Your task to perform on an android device: toggle priority inbox in the gmail app Image 0: 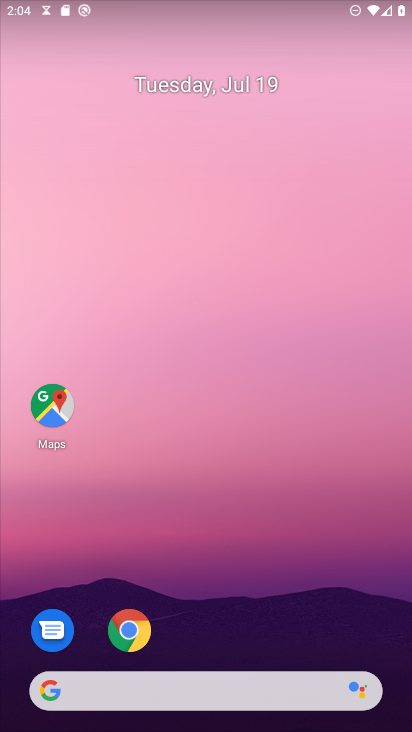
Step 0: press home button
Your task to perform on an android device: toggle priority inbox in the gmail app Image 1: 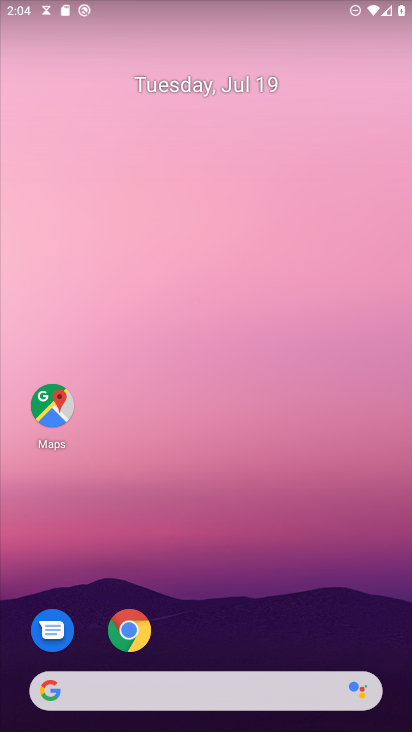
Step 1: drag from (140, 686) to (288, 195)
Your task to perform on an android device: toggle priority inbox in the gmail app Image 2: 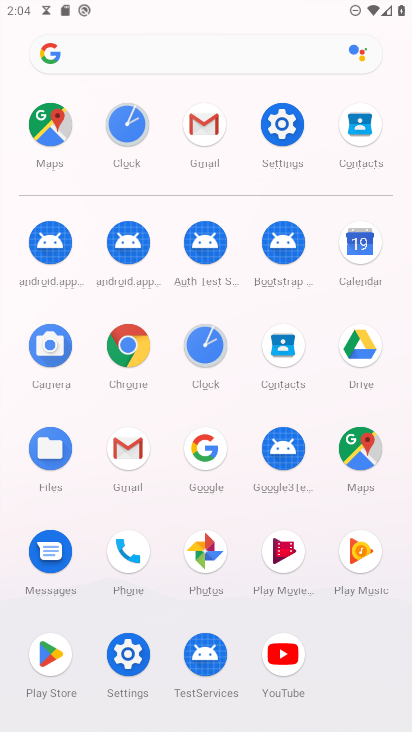
Step 2: click (207, 135)
Your task to perform on an android device: toggle priority inbox in the gmail app Image 3: 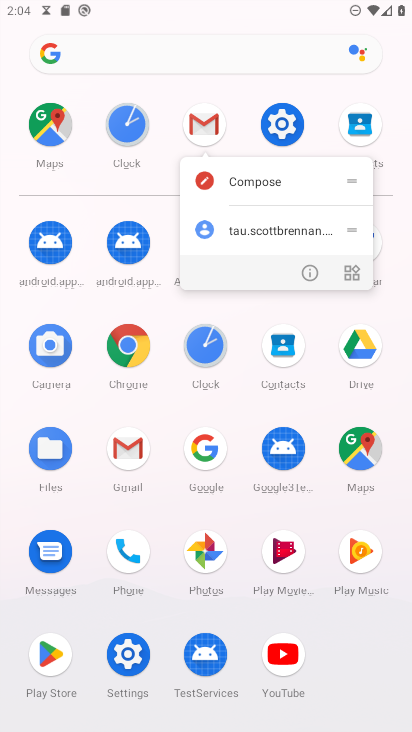
Step 3: click (201, 121)
Your task to perform on an android device: toggle priority inbox in the gmail app Image 4: 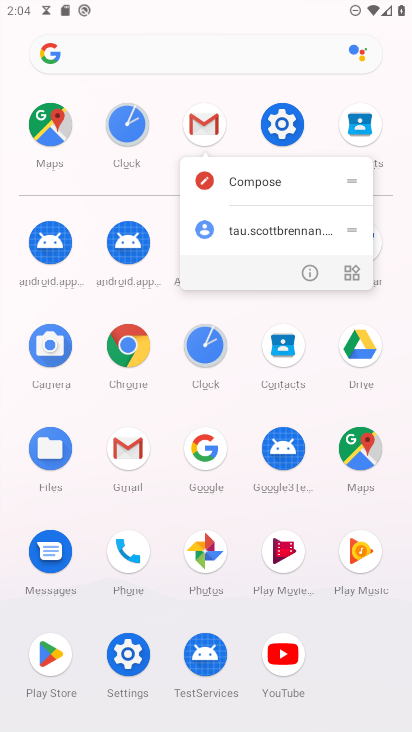
Step 4: click (205, 134)
Your task to perform on an android device: toggle priority inbox in the gmail app Image 5: 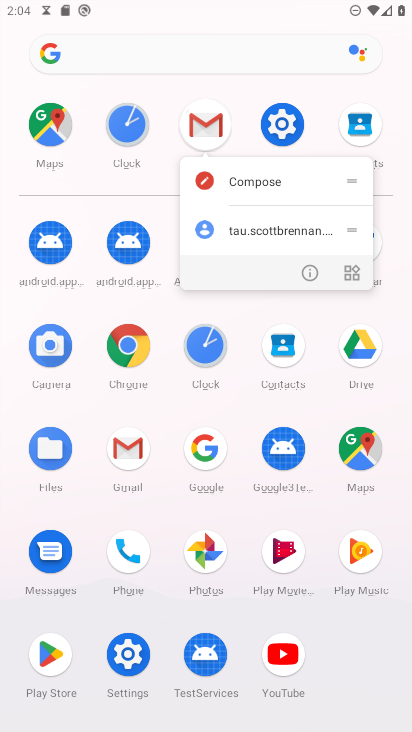
Step 5: click (207, 121)
Your task to perform on an android device: toggle priority inbox in the gmail app Image 6: 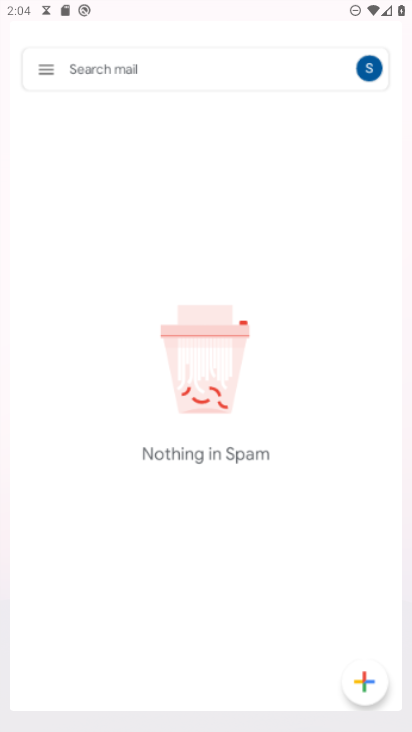
Step 6: click (202, 123)
Your task to perform on an android device: toggle priority inbox in the gmail app Image 7: 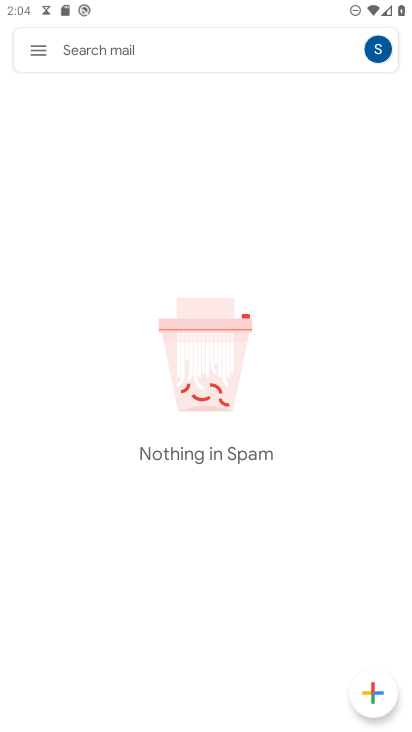
Step 7: click (34, 47)
Your task to perform on an android device: toggle priority inbox in the gmail app Image 8: 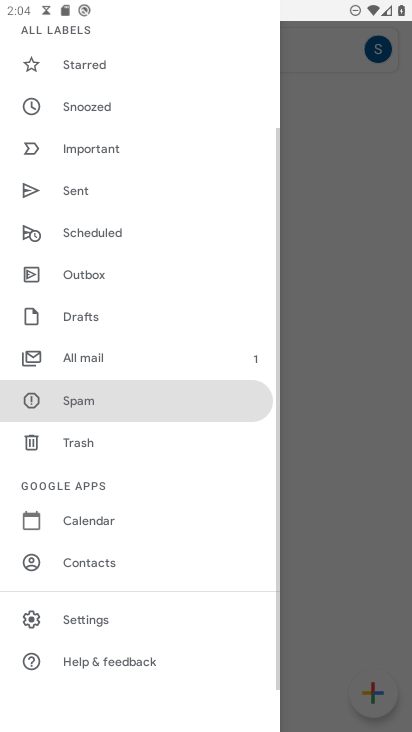
Step 8: click (103, 621)
Your task to perform on an android device: toggle priority inbox in the gmail app Image 9: 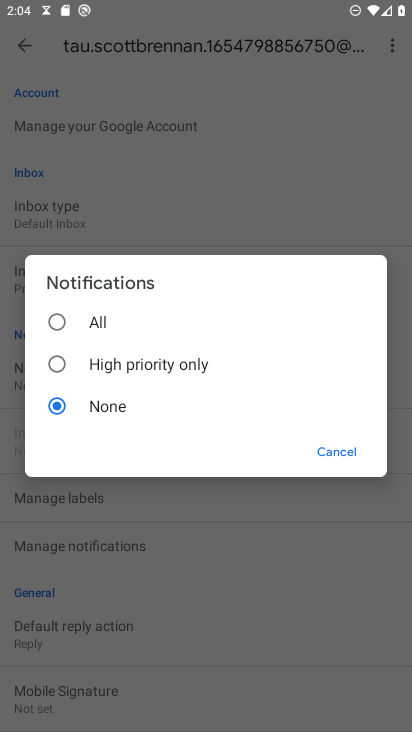
Step 9: click (332, 455)
Your task to perform on an android device: toggle priority inbox in the gmail app Image 10: 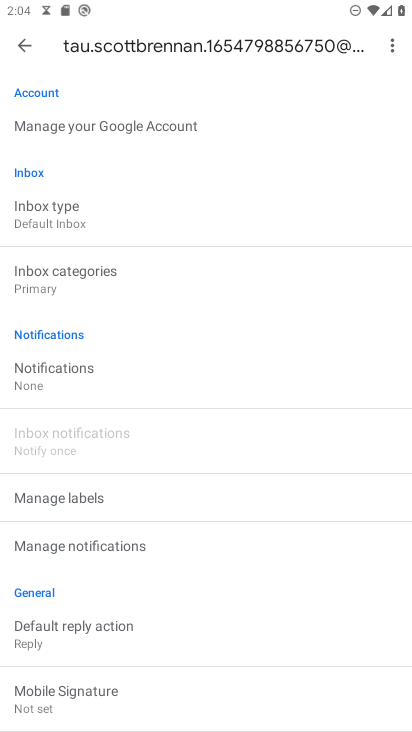
Step 10: click (55, 217)
Your task to perform on an android device: toggle priority inbox in the gmail app Image 11: 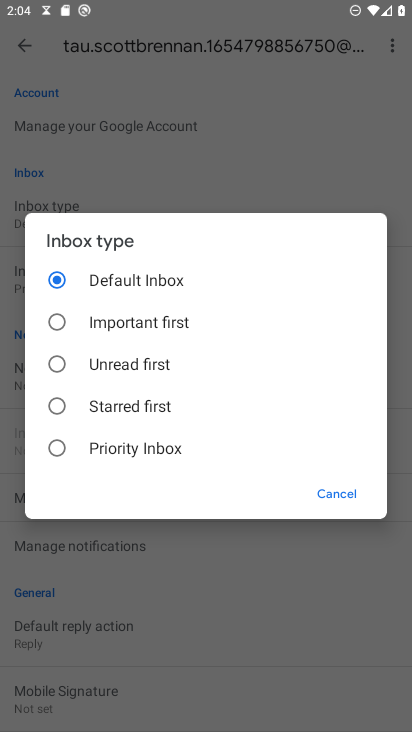
Step 11: click (55, 454)
Your task to perform on an android device: toggle priority inbox in the gmail app Image 12: 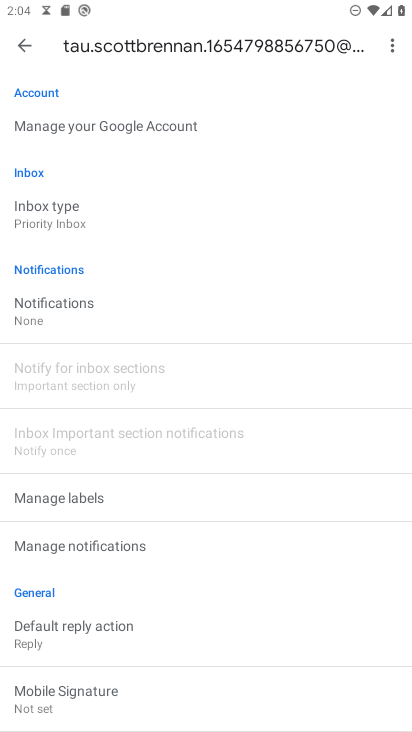
Step 12: task complete